Your task to perform on an android device: open chrome privacy settings Image 0: 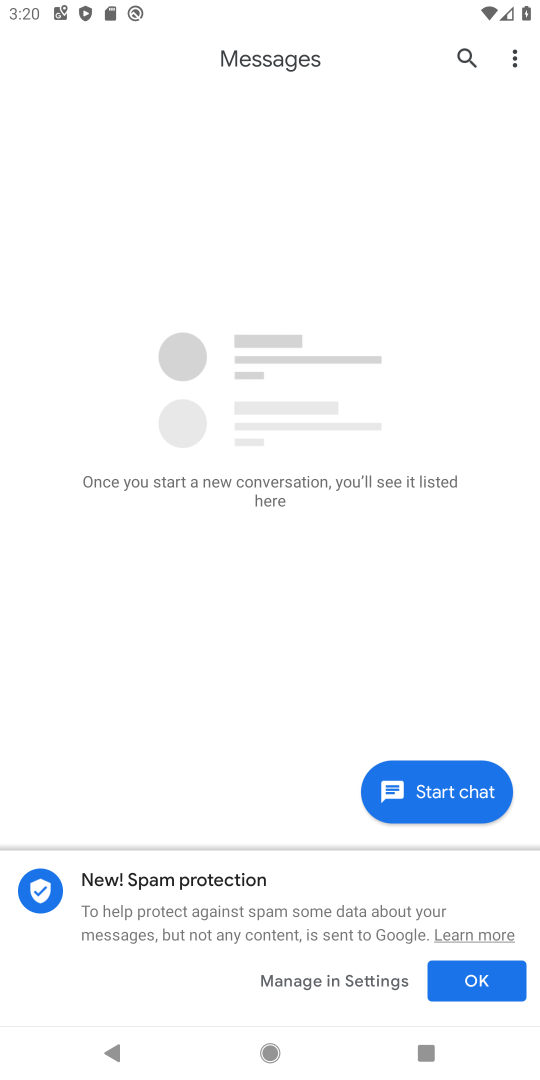
Step 0: press home button
Your task to perform on an android device: open chrome privacy settings Image 1: 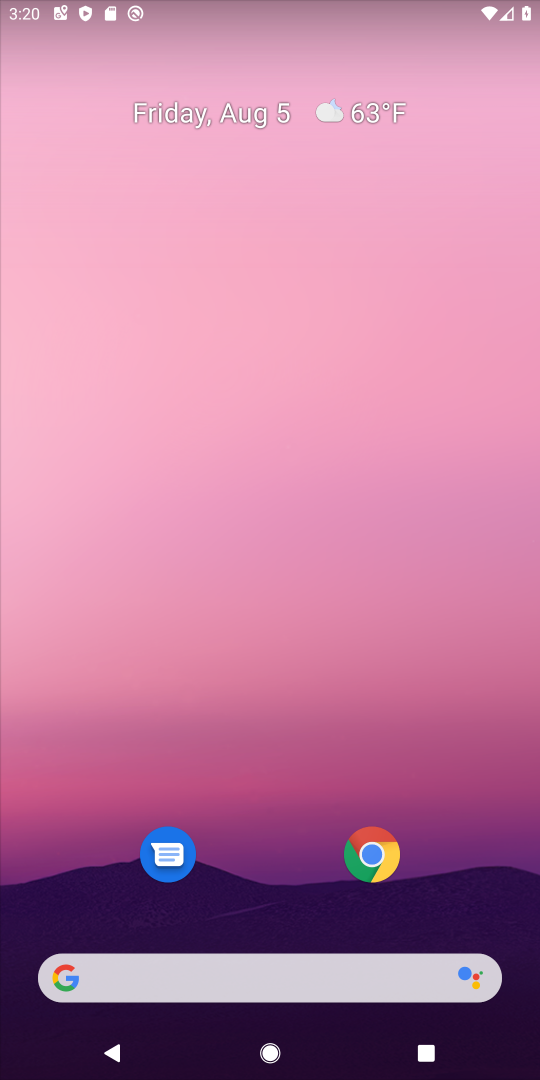
Step 1: click (350, 854)
Your task to perform on an android device: open chrome privacy settings Image 2: 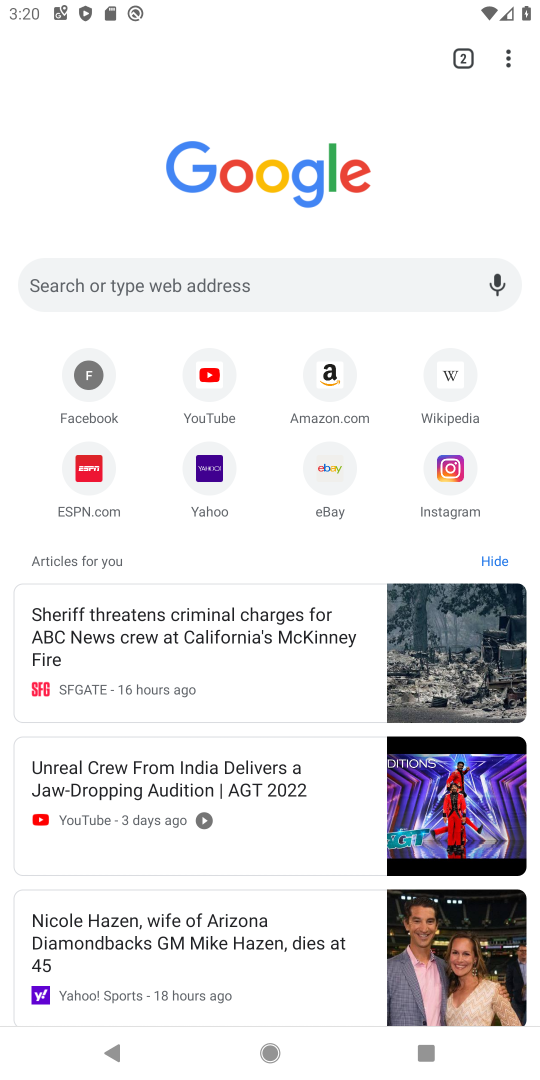
Step 2: click (514, 59)
Your task to perform on an android device: open chrome privacy settings Image 3: 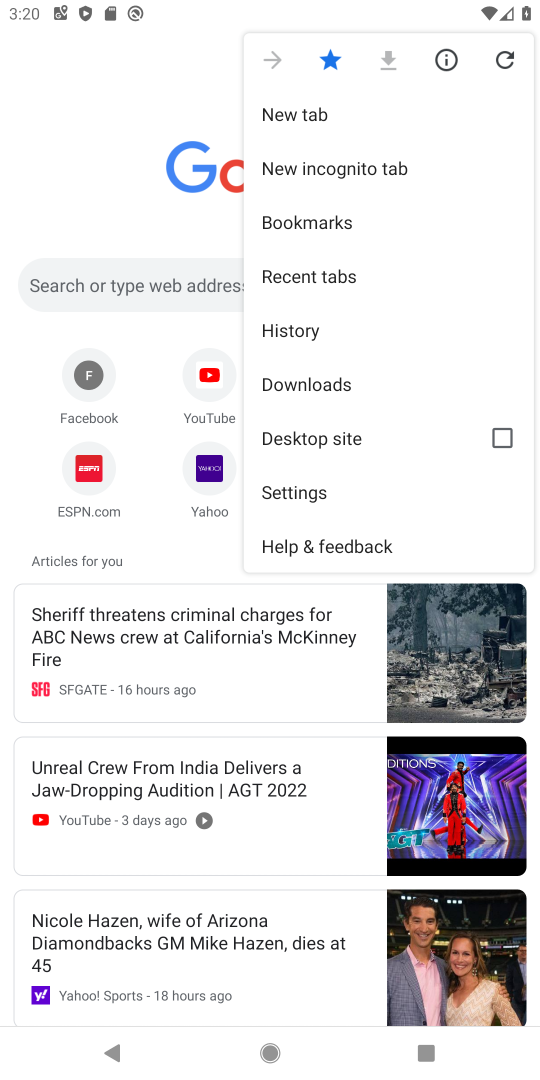
Step 3: click (294, 497)
Your task to perform on an android device: open chrome privacy settings Image 4: 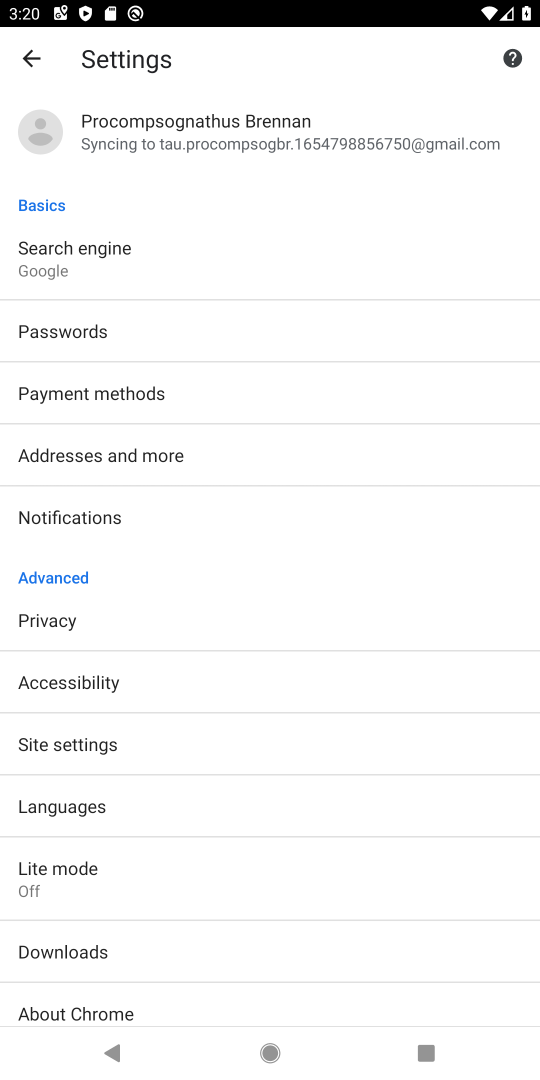
Step 4: click (83, 631)
Your task to perform on an android device: open chrome privacy settings Image 5: 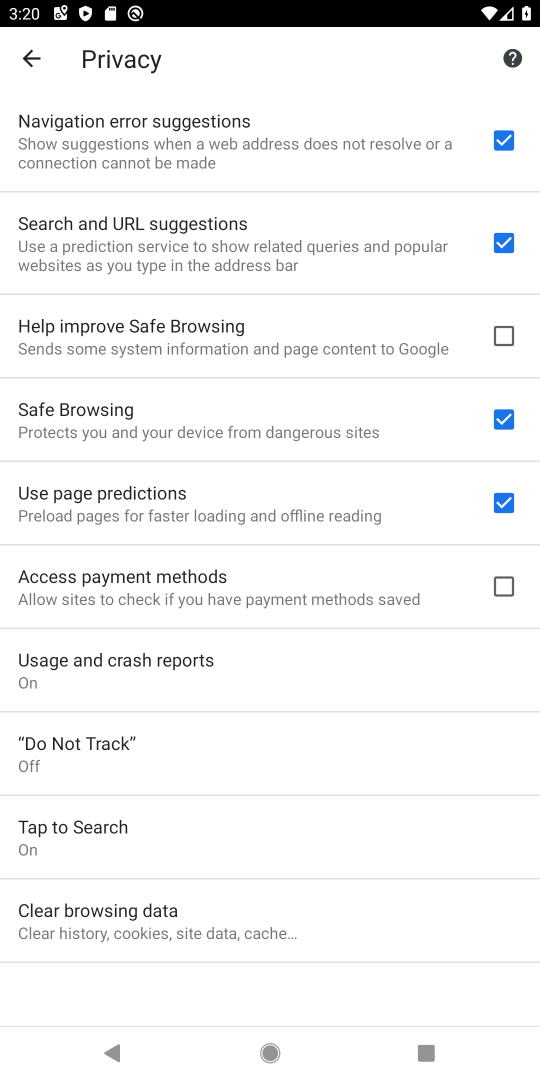
Step 5: task complete